Your task to perform on an android device: open app "Indeed Job Search" (install if not already installed) and go to login screen Image 0: 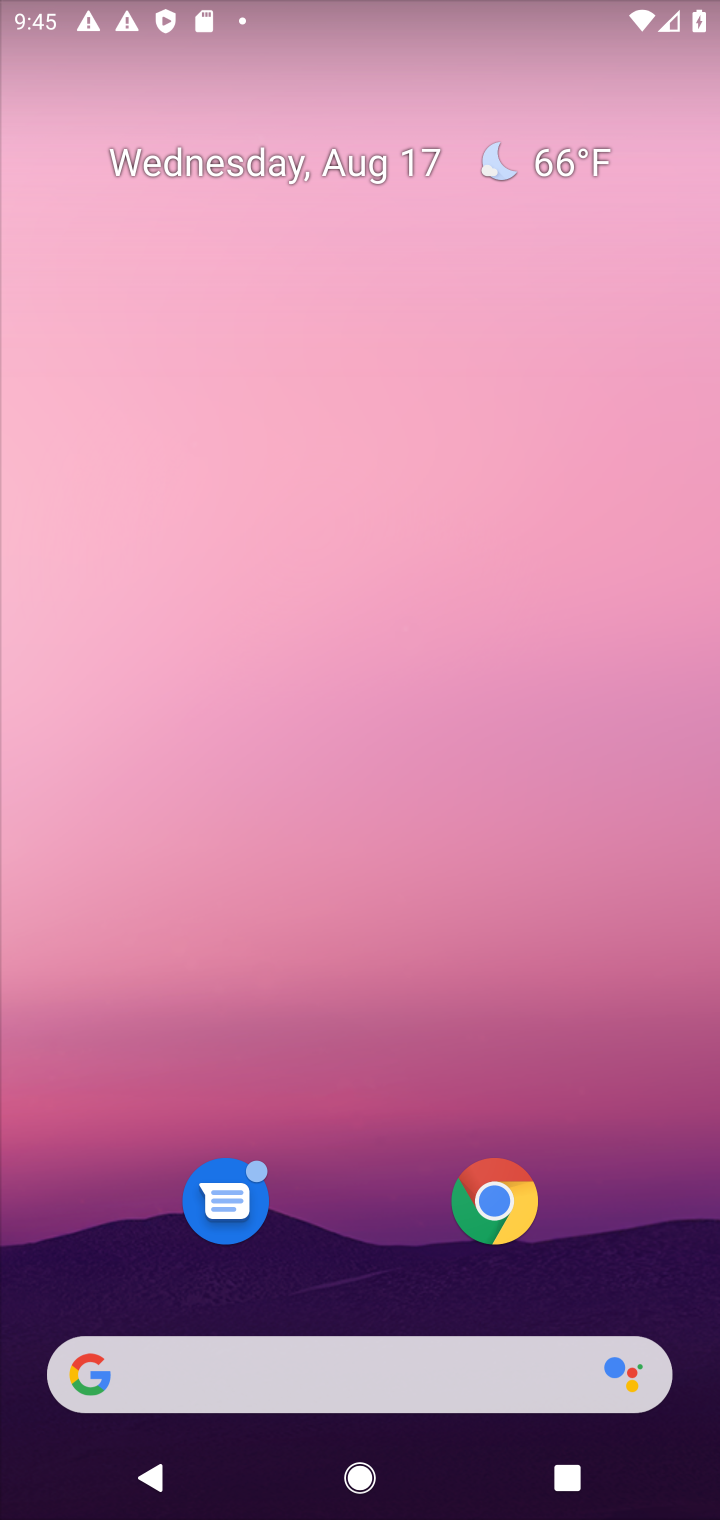
Step 0: drag from (378, 744) to (385, 115)
Your task to perform on an android device: open app "Indeed Job Search" (install if not already installed) and go to login screen Image 1: 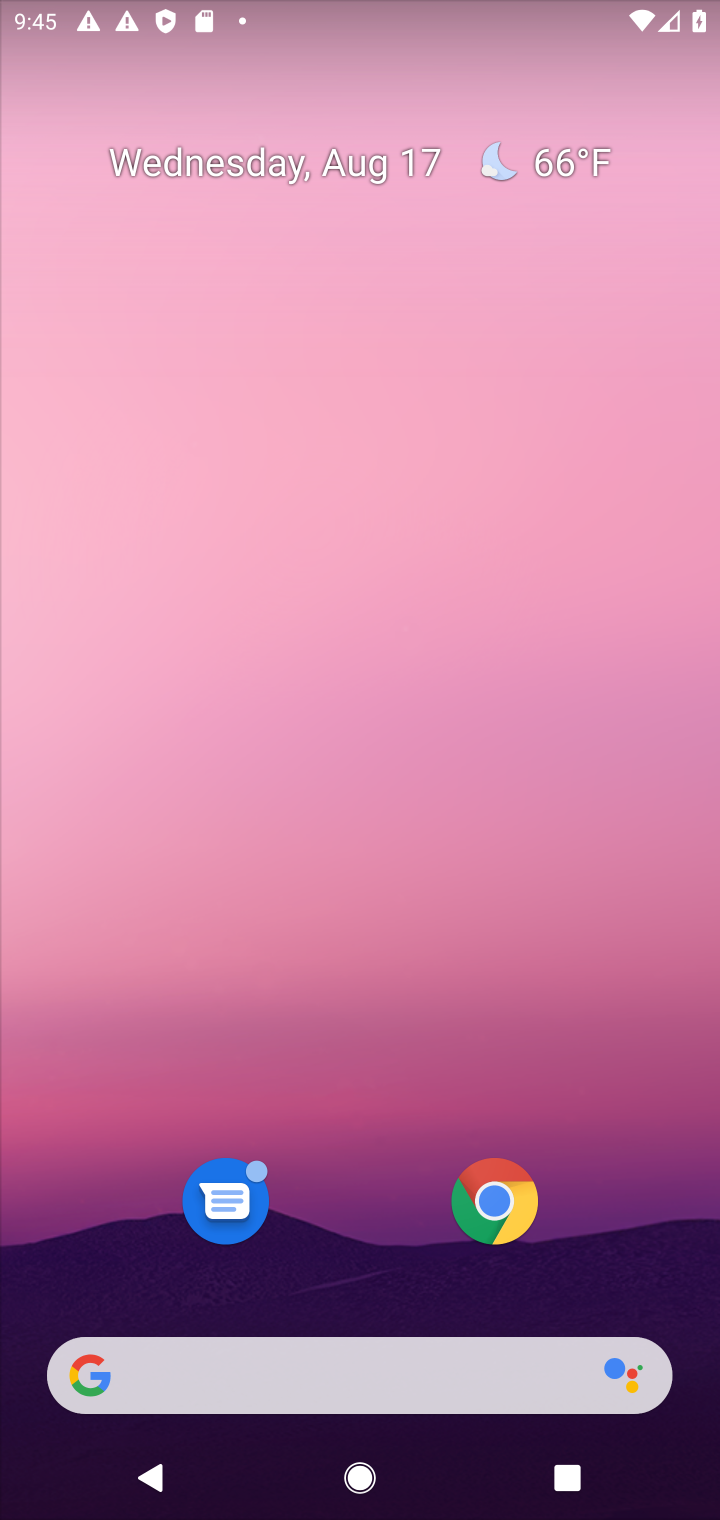
Step 1: drag from (358, 1229) to (385, 0)
Your task to perform on an android device: open app "Indeed Job Search" (install if not already installed) and go to login screen Image 2: 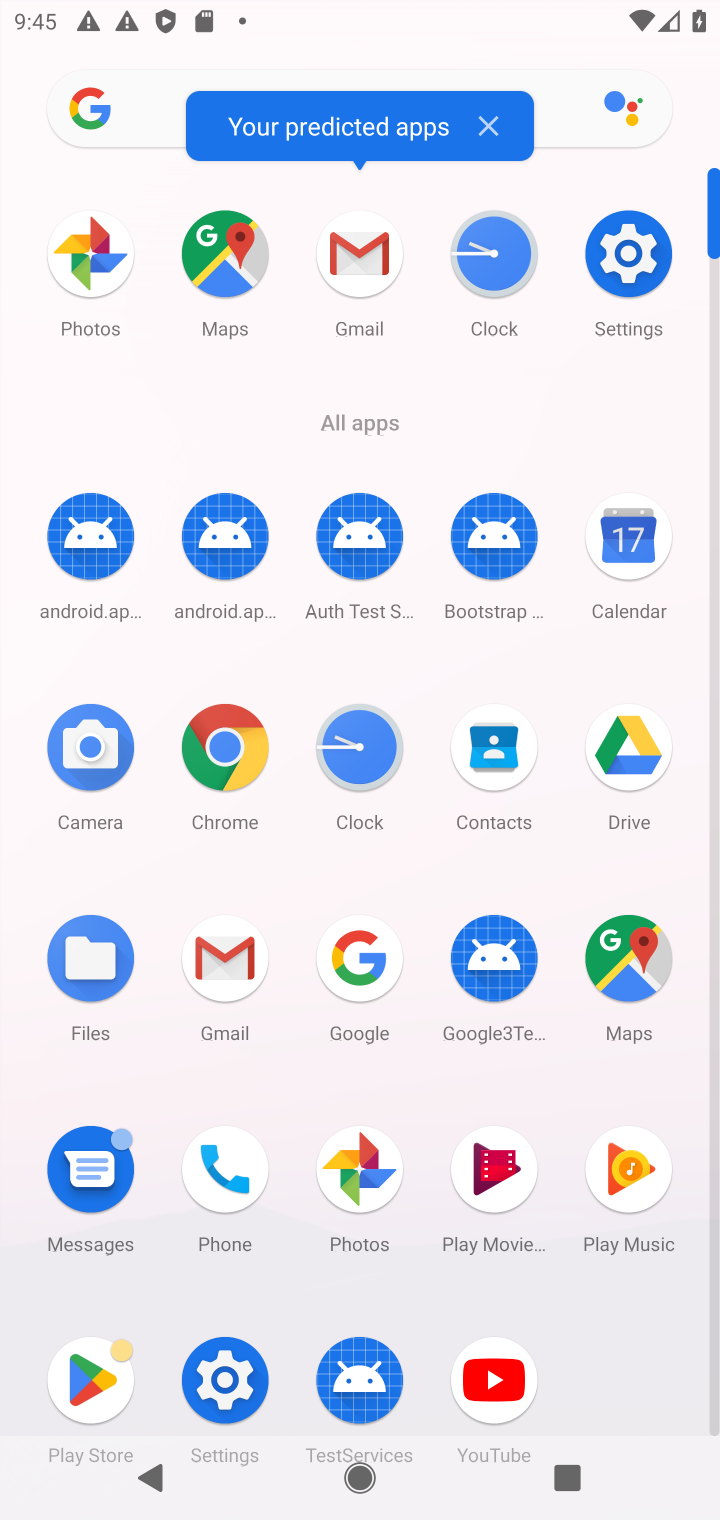
Step 2: click (78, 1369)
Your task to perform on an android device: open app "Indeed Job Search" (install if not already installed) and go to login screen Image 3: 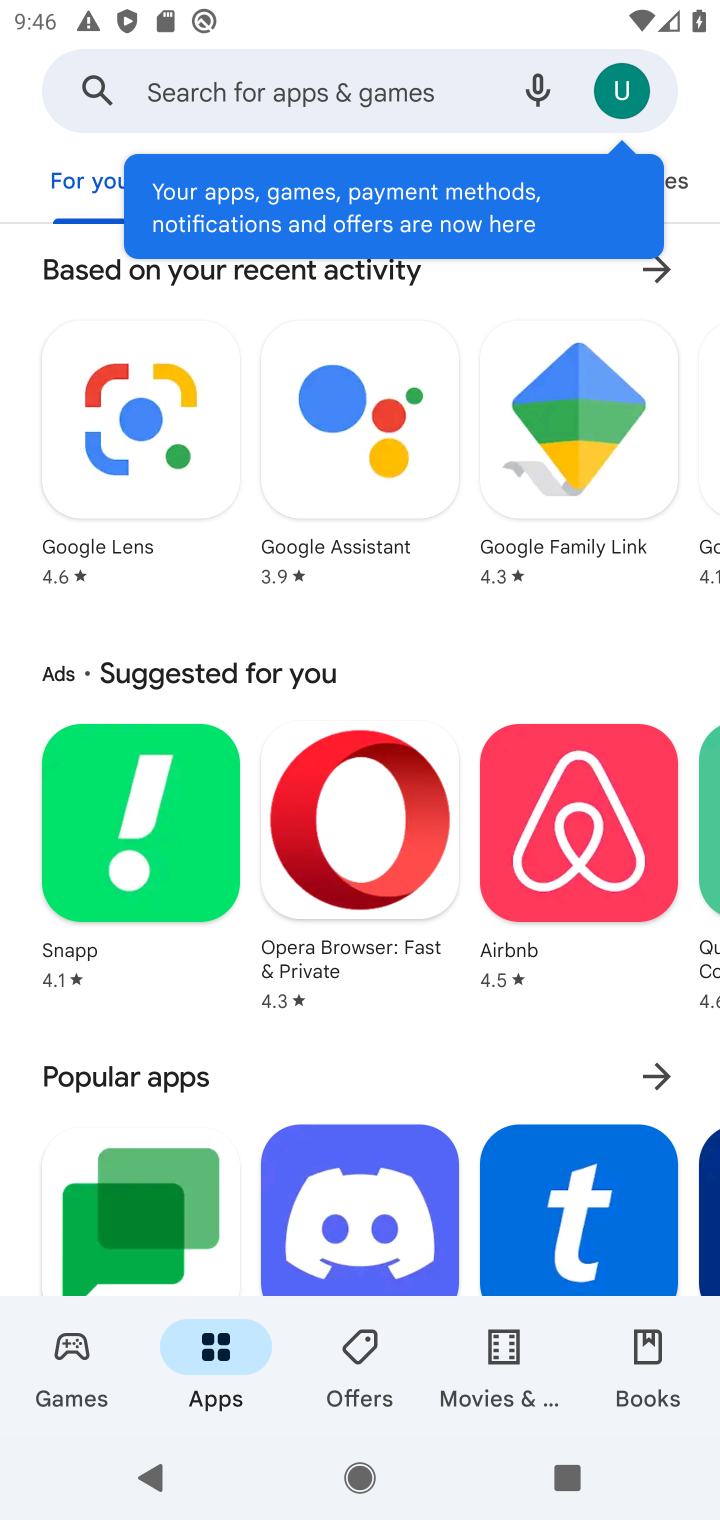
Step 3: click (234, 73)
Your task to perform on an android device: open app "Indeed Job Search" (install if not already installed) and go to login screen Image 4: 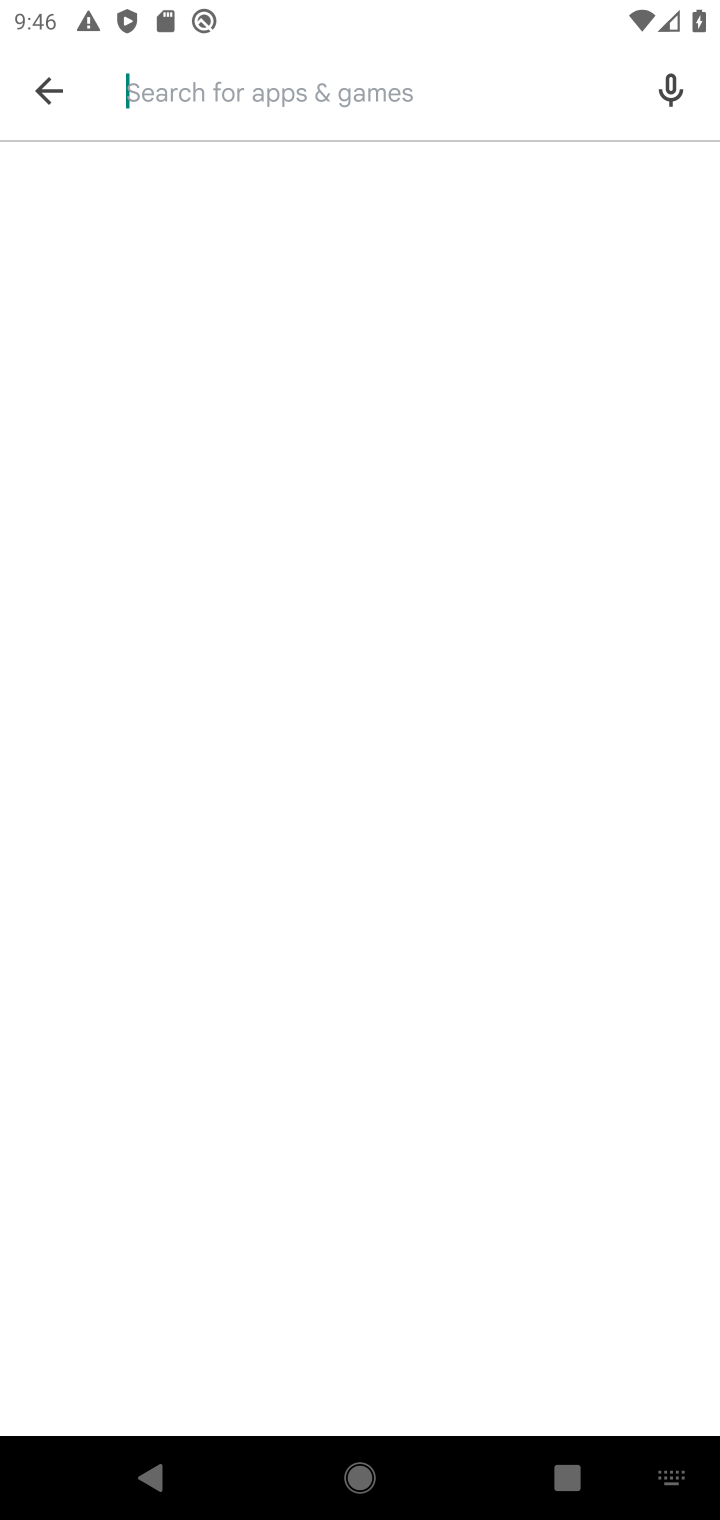
Step 4: type "Indeed Job Search"
Your task to perform on an android device: open app "Indeed Job Search" (install if not already installed) and go to login screen Image 5: 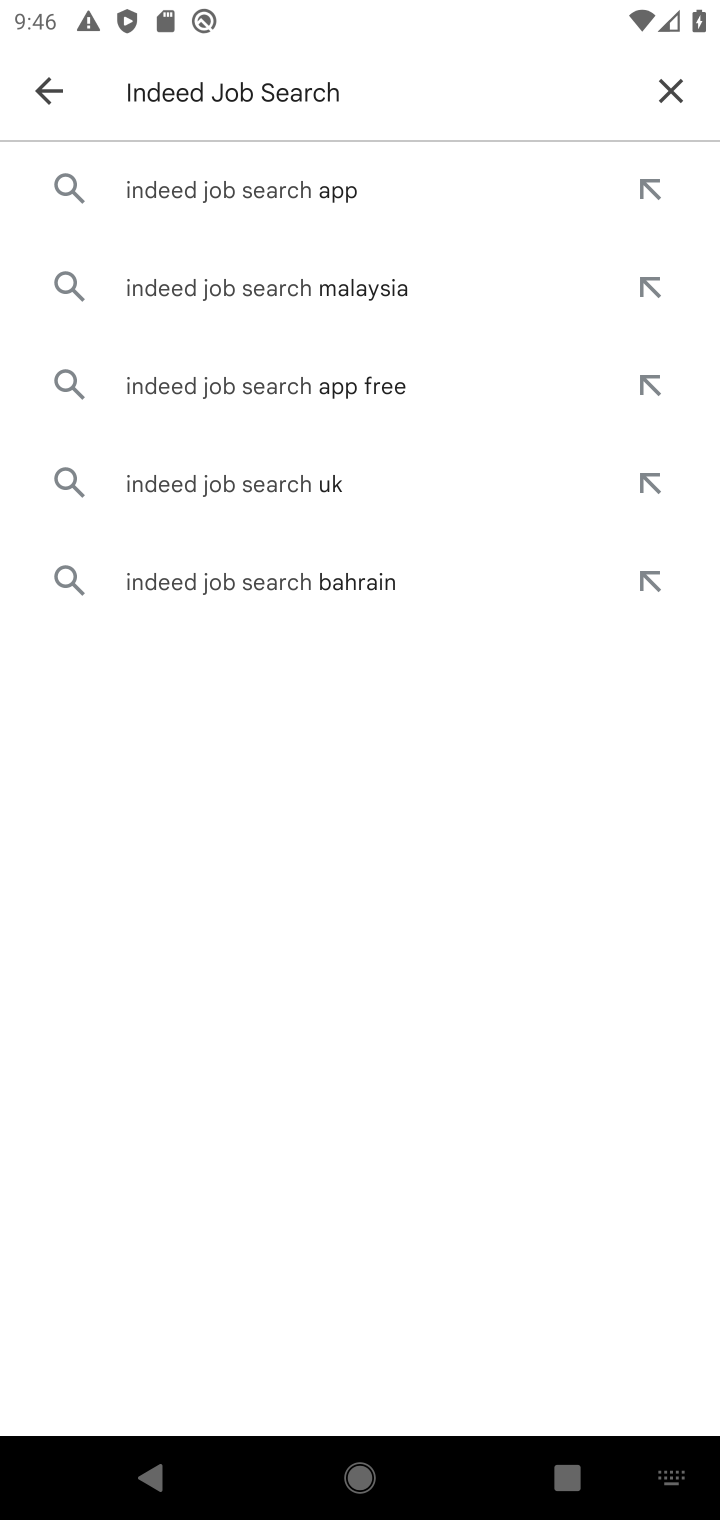
Step 5: click (242, 181)
Your task to perform on an android device: open app "Indeed Job Search" (install if not already installed) and go to login screen Image 6: 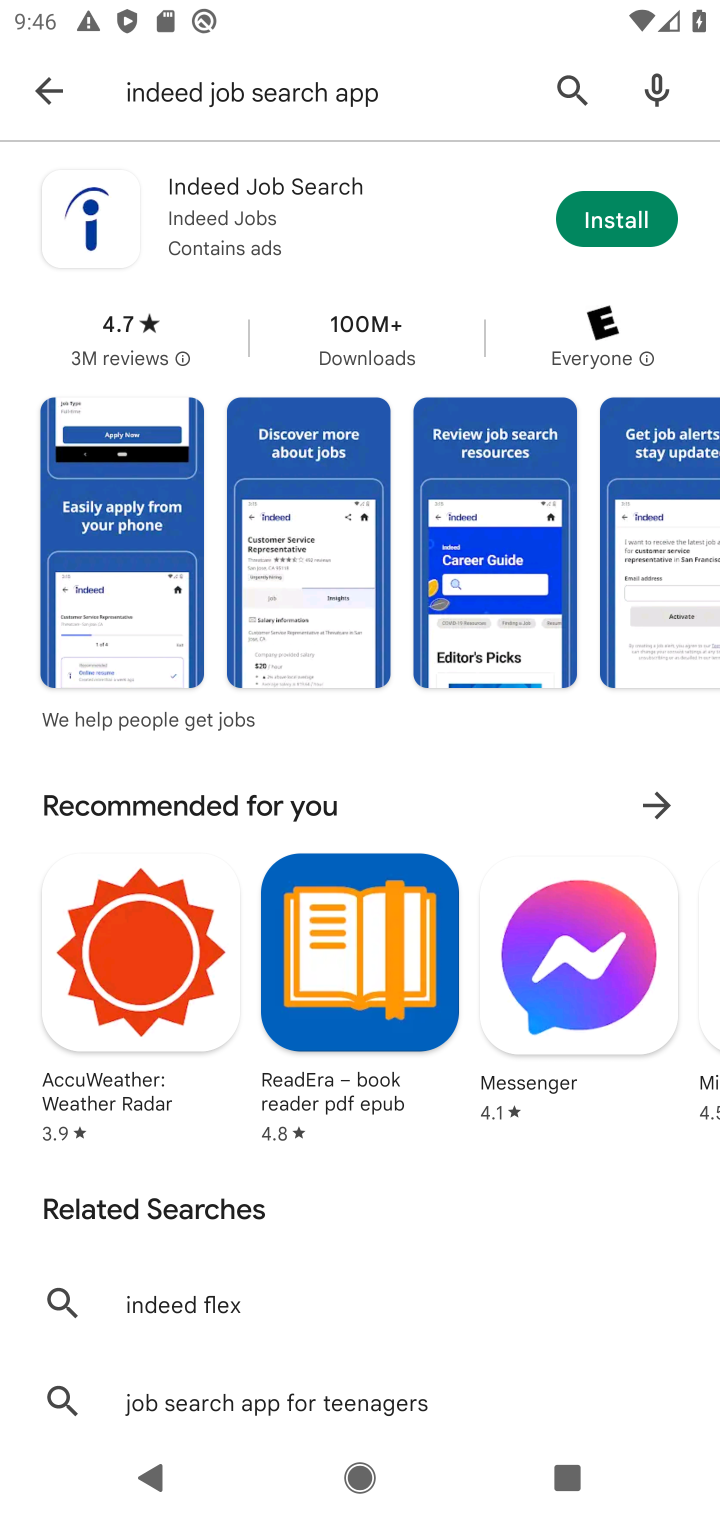
Step 6: click (625, 212)
Your task to perform on an android device: open app "Indeed Job Search" (install if not already installed) and go to login screen Image 7: 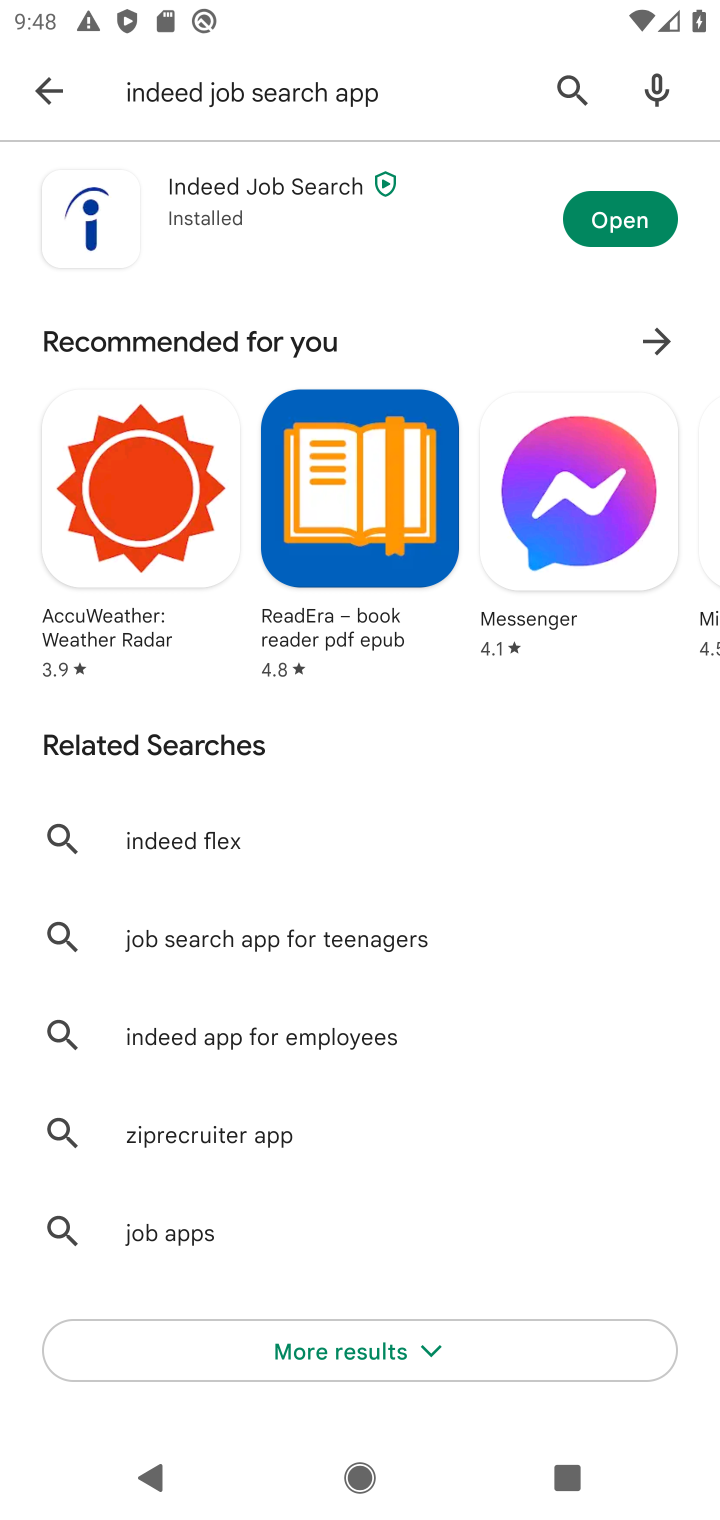
Step 7: click (615, 220)
Your task to perform on an android device: open app "Indeed Job Search" (install if not already installed) and go to login screen Image 8: 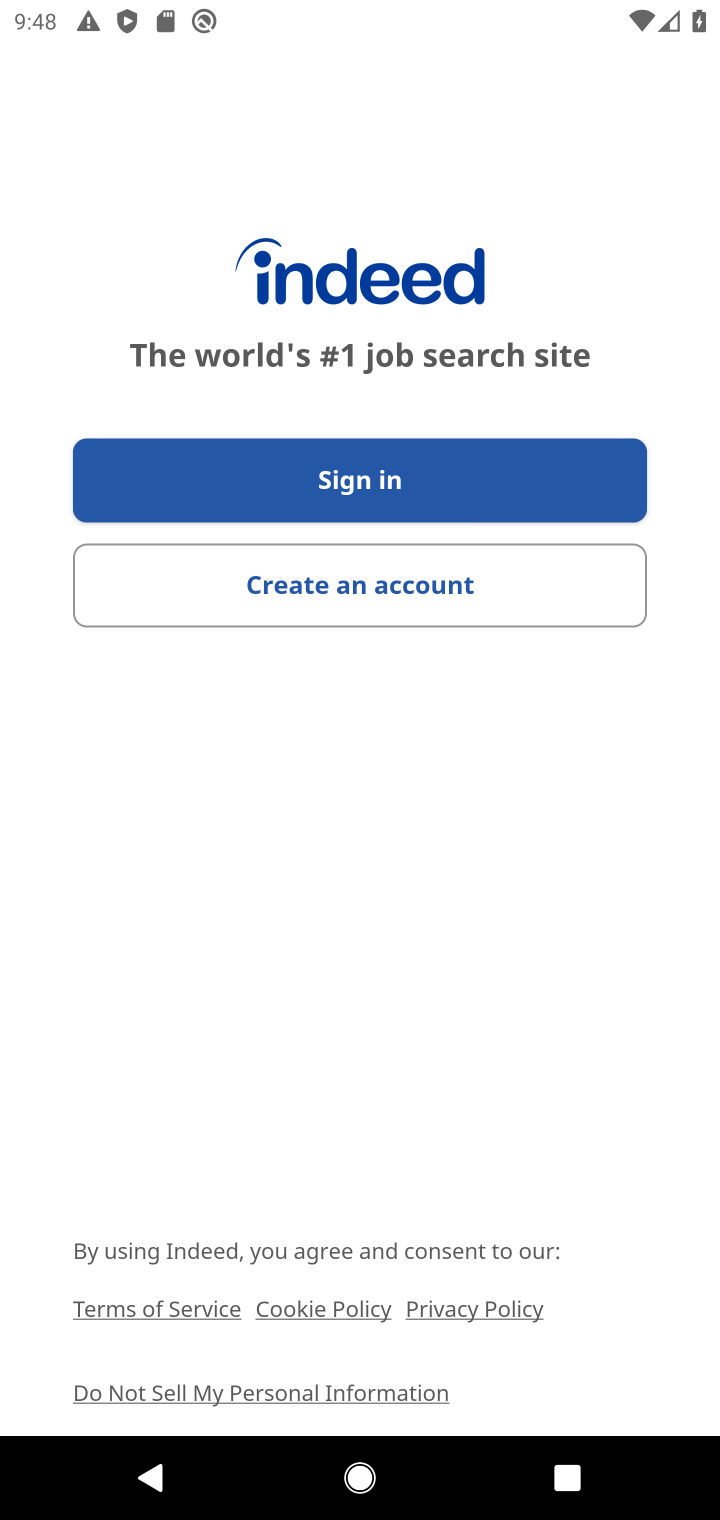
Step 8: click (364, 485)
Your task to perform on an android device: open app "Indeed Job Search" (install if not already installed) and go to login screen Image 9: 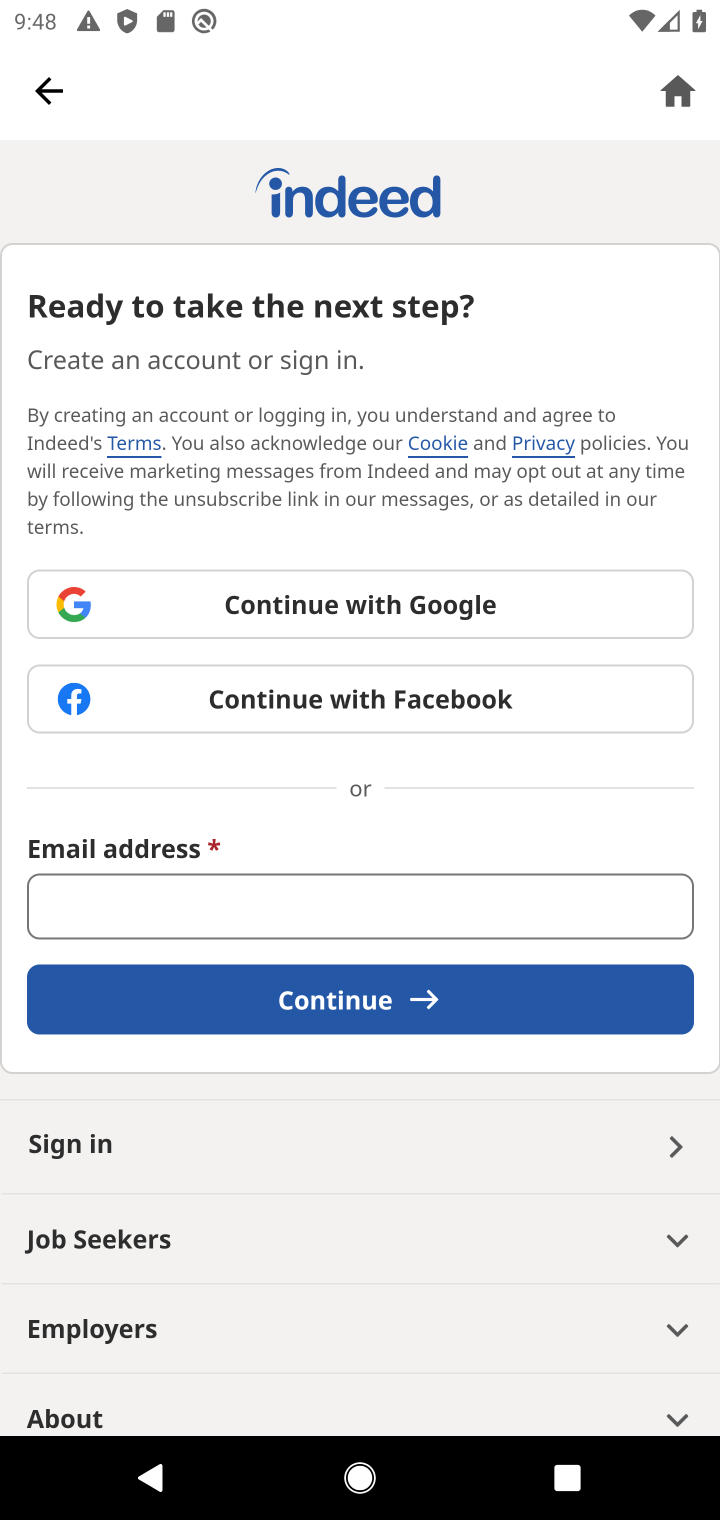
Step 9: click (389, 601)
Your task to perform on an android device: open app "Indeed Job Search" (install if not already installed) and go to login screen Image 10: 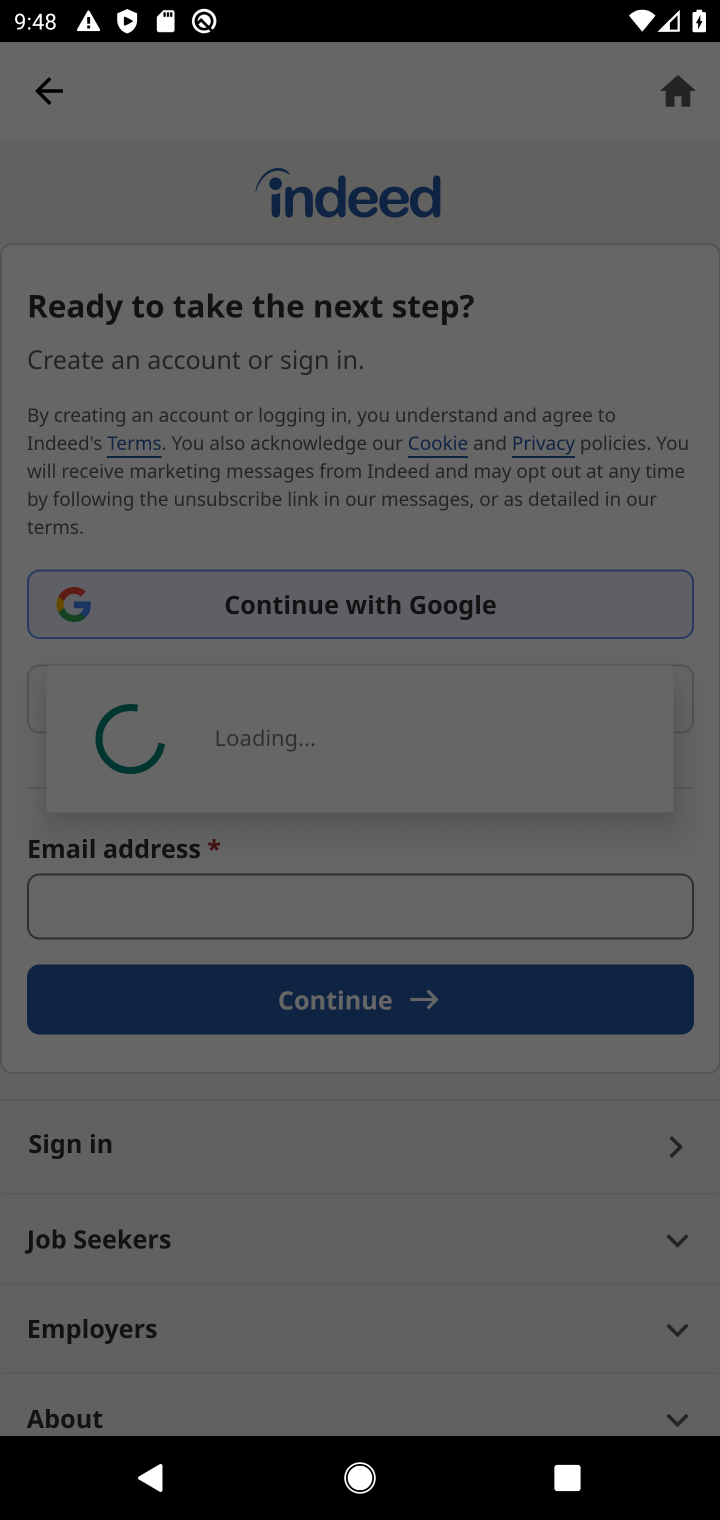
Step 10: drag from (116, 14) to (236, 1172)
Your task to perform on an android device: open app "Indeed Job Search" (install if not already installed) and go to login screen Image 11: 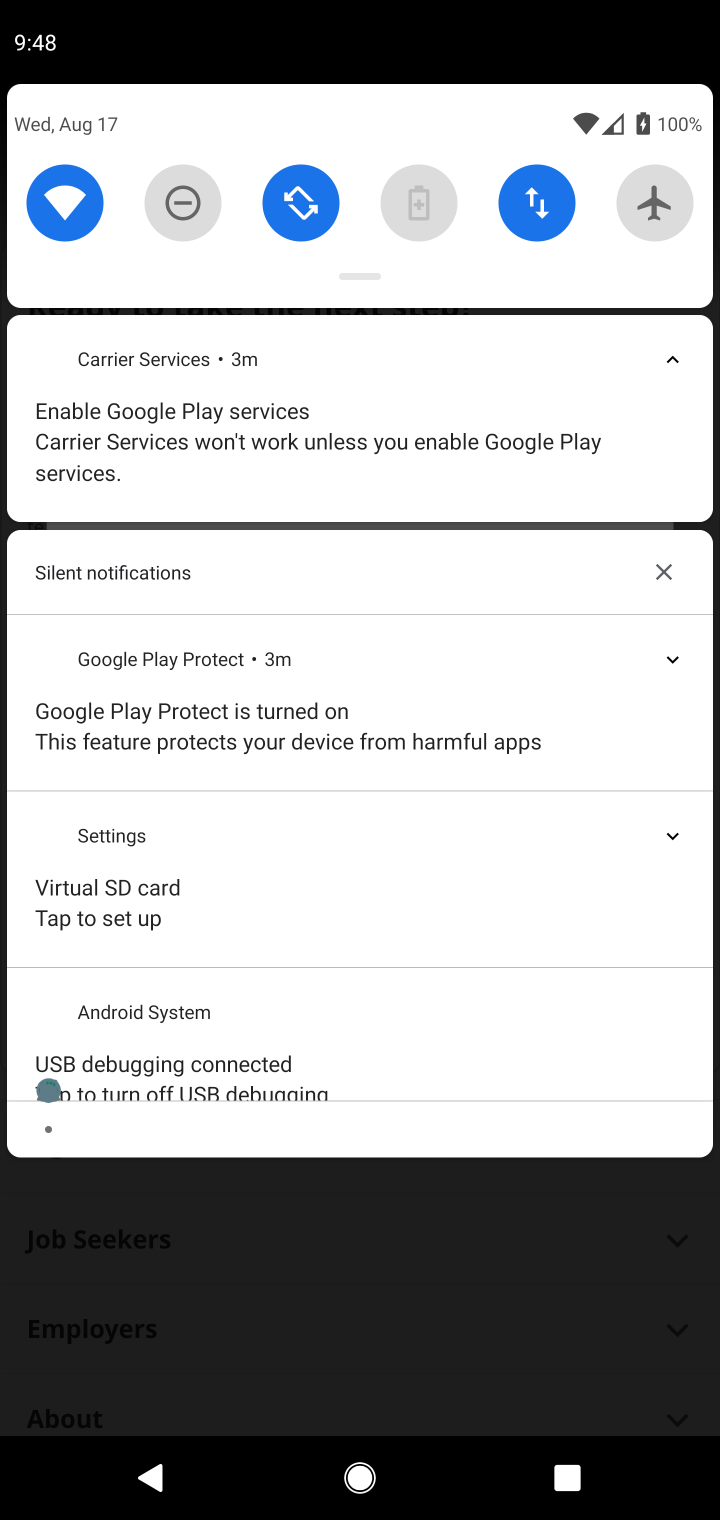
Step 11: drag from (391, 1200) to (426, 290)
Your task to perform on an android device: open app "Indeed Job Search" (install if not already installed) and go to login screen Image 12: 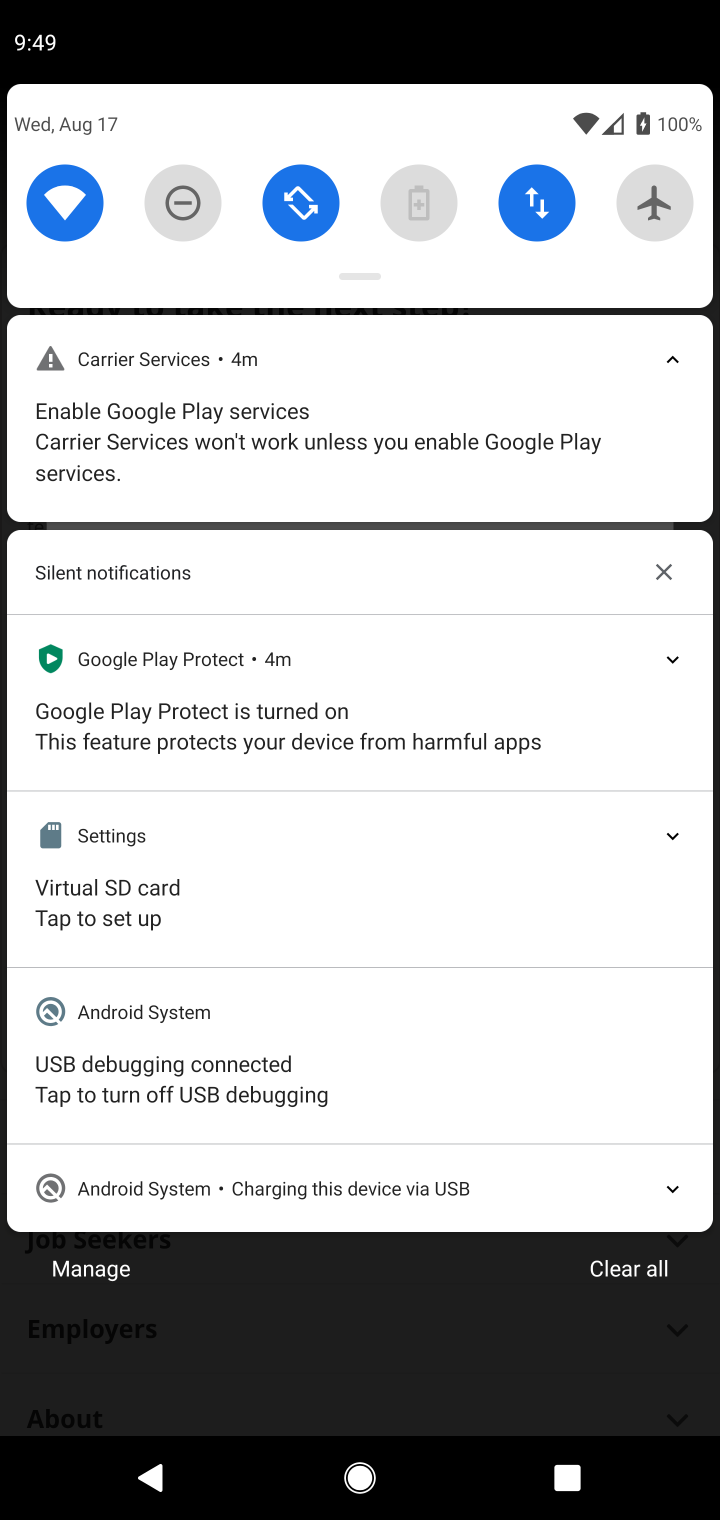
Step 12: click (636, 1272)
Your task to perform on an android device: open app "Indeed Job Search" (install if not already installed) and go to login screen Image 13: 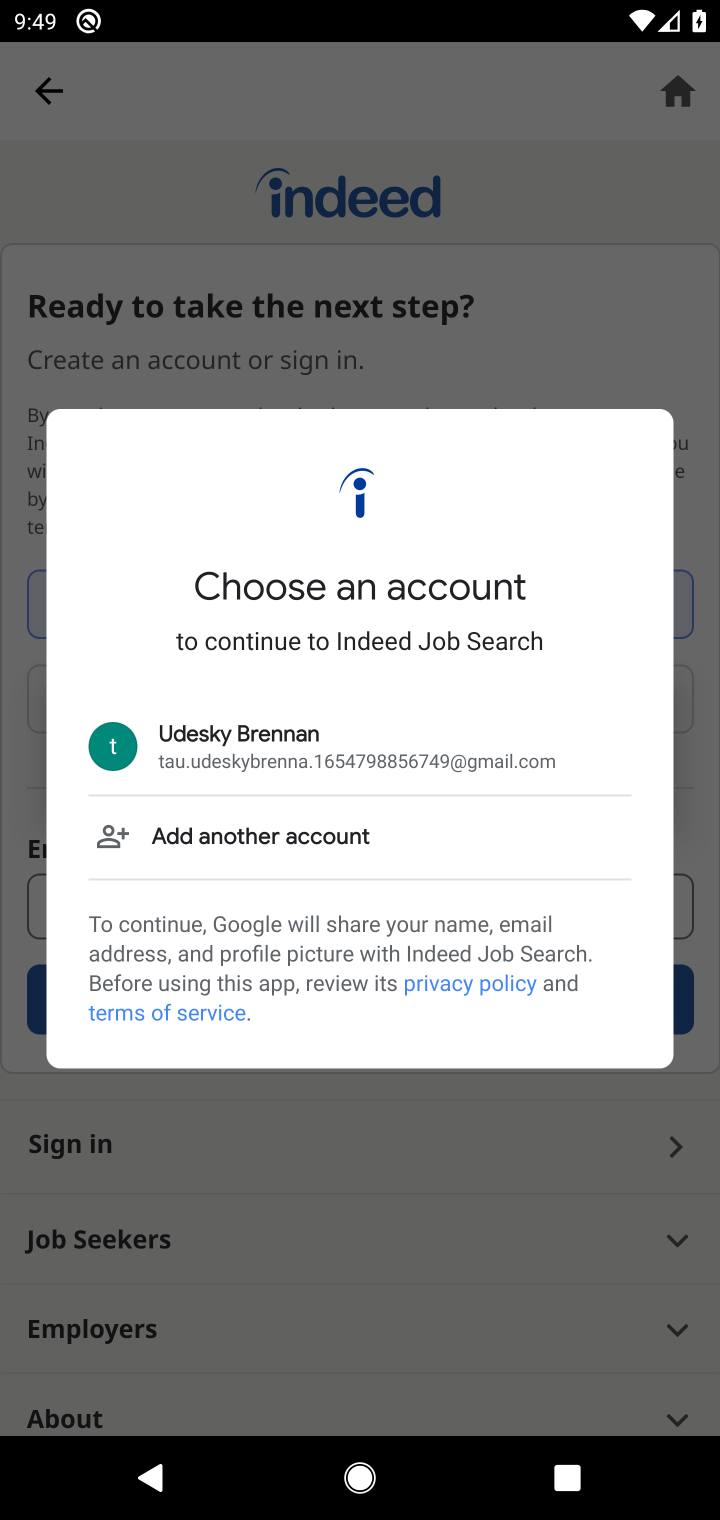
Step 13: click (287, 728)
Your task to perform on an android device: open app "Indeed Job Search" (install if not already installed) and go to login screen Image 14: 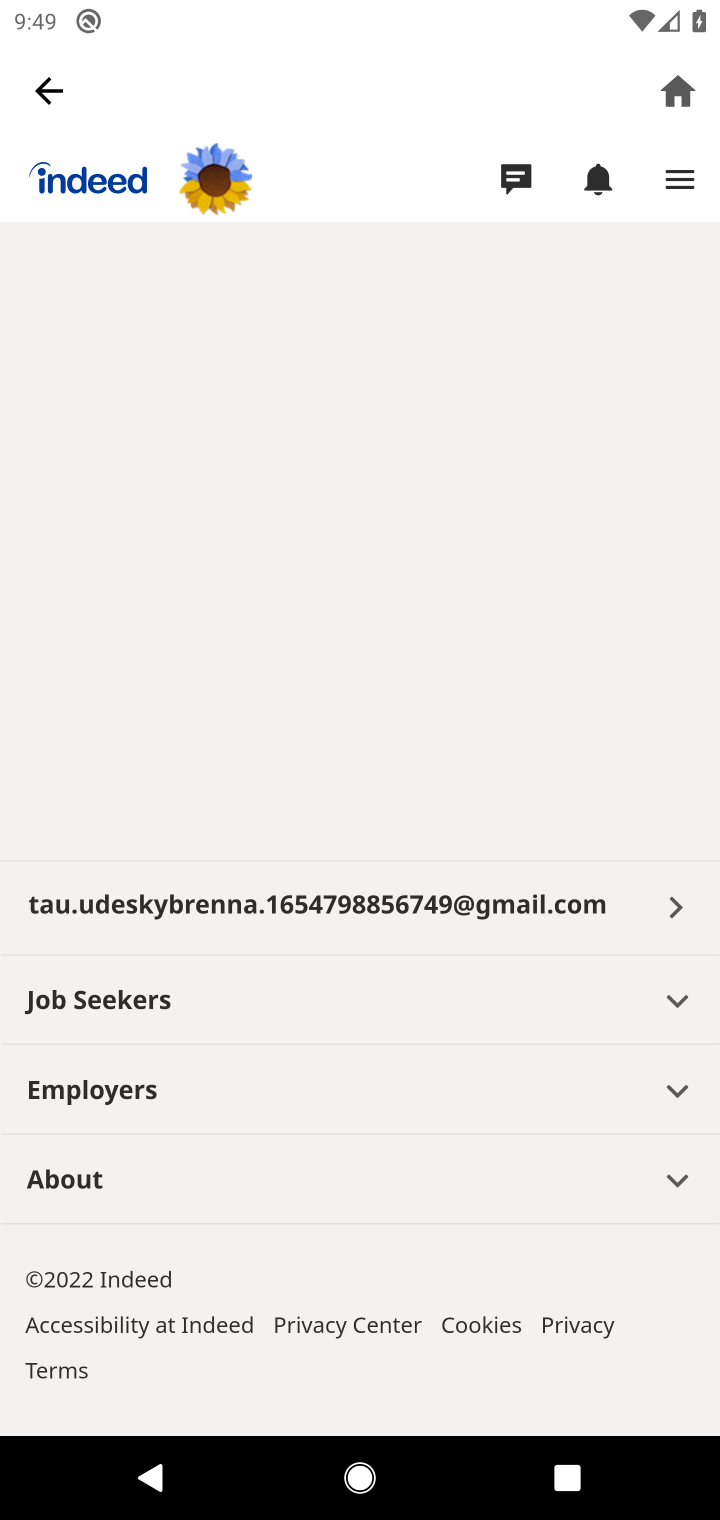
Step 14: task complete